Your task to perform on an android device: Go to settings Image 0: 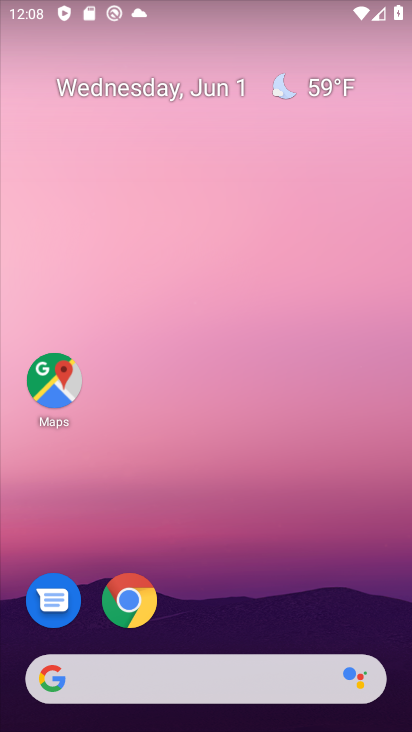
Step 0: drag from (233, 599) to (165, 16)
Your task to perform on an android device: Go to settings Image 1: 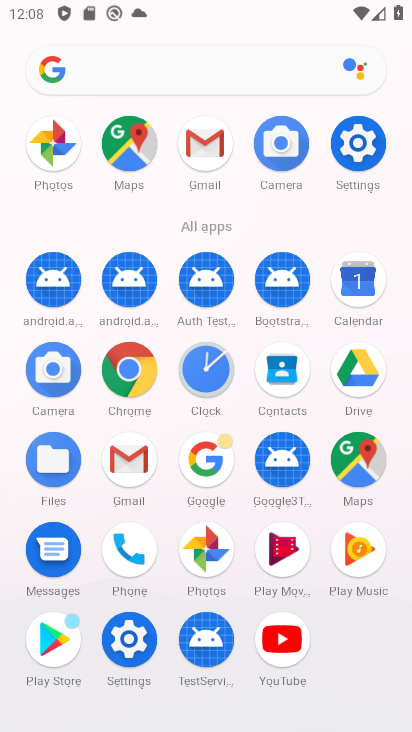
Step 1: click (347, 141)
Your task to perform on an android device: Go to settings Image 2: 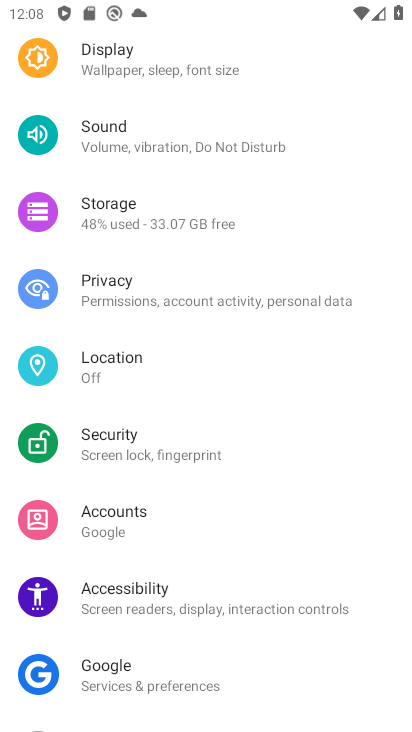
Step 2: task complete